Your task to perform on an android device: change timer sound Image 0: 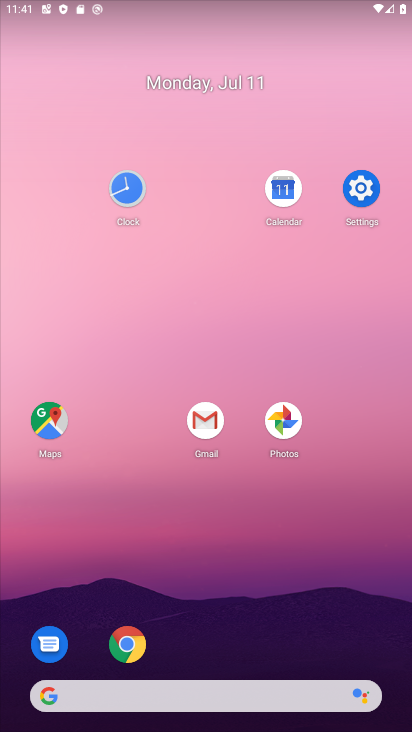
Step 0: click (116, 186)
Your task to perform on an android device: change timer sound Image 1: 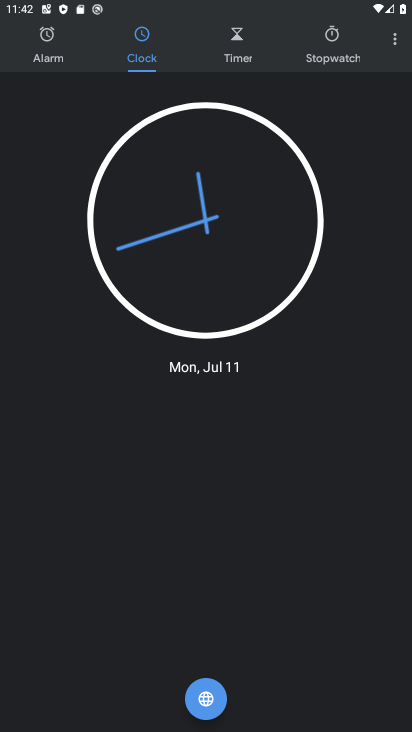
Step 1: click (394, 41)
Your task to perform on an android device: change timer sound Image 2: 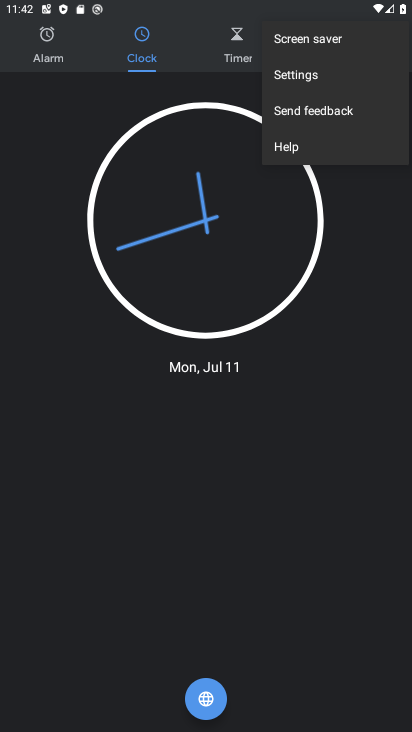
Step 2: click (319, 69)
Your task to perform on an android device: change timer sound Image 3: 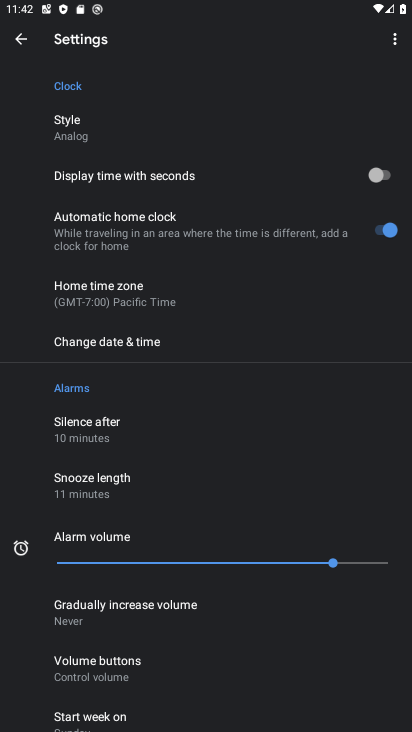
Step 3: drag from (262, 492) to (266, 196)
Your task to perform on an android device: change timer sound Image 4: 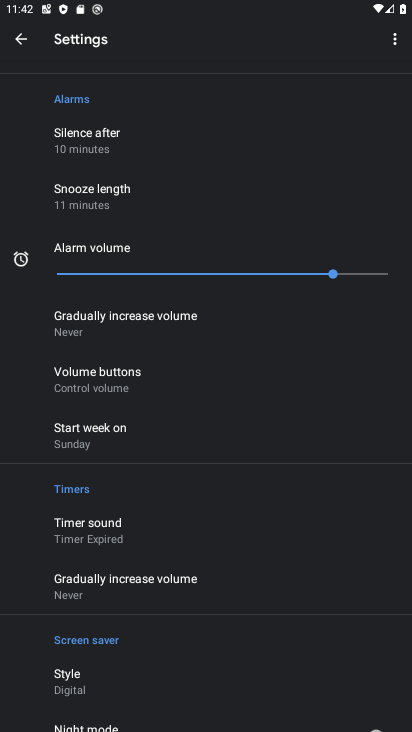
Step 4: click (115, 538)
Your task to perform on an android device: change timer sound Image 5: 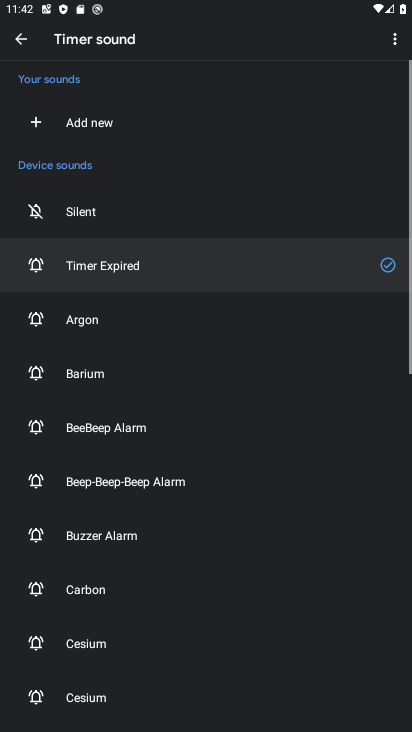
Step 5: click (92, 320)
Your task to perform on an android device: change timer sound Image 6: 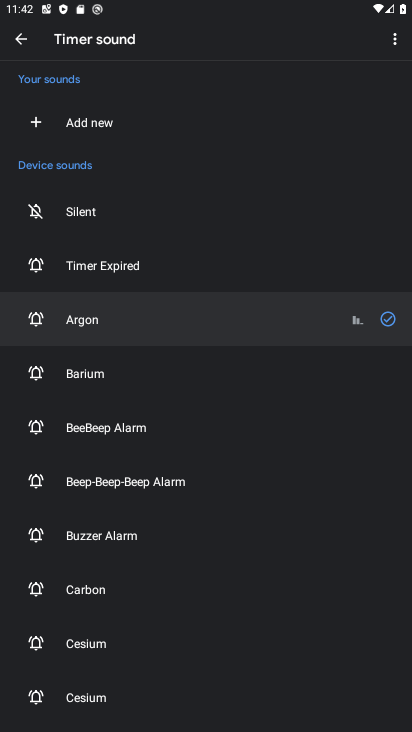
Step 6: task complete